Your task to perform on an android device: check the backup settings in the google photos Image 0: 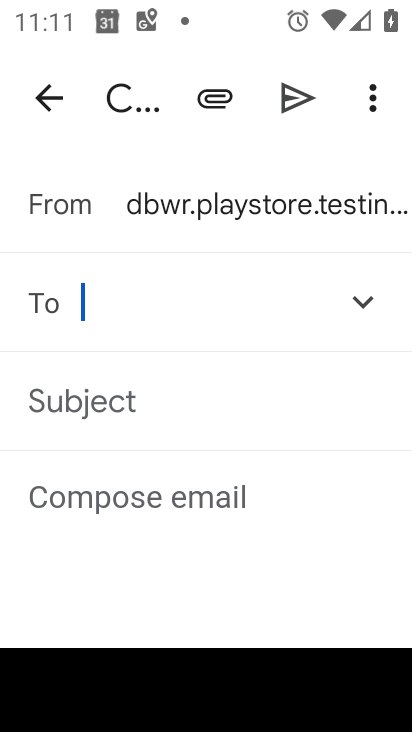
Step 0: press home button
Your task to perform on an android device: check the backup settings in the google photos Image 1: 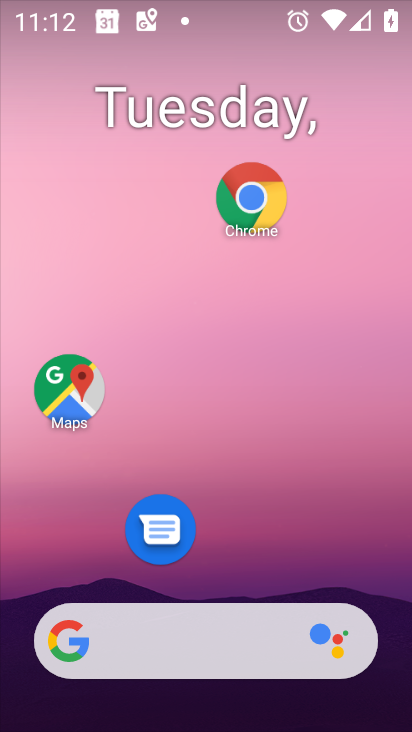
Step 1: drag from (322, 553) to (340, 47)
Your task to perform on an android device: check the backup settings in the google photos Image 2: 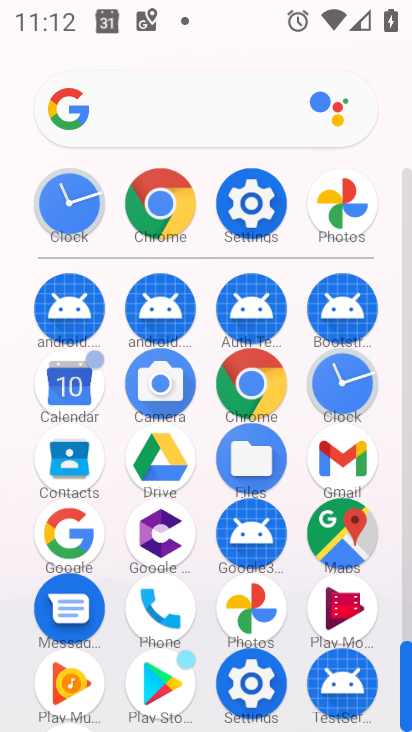
Step 2: click (255, 622)
Your task to perform on an android device: check the backup settings in the google photos Image 3: 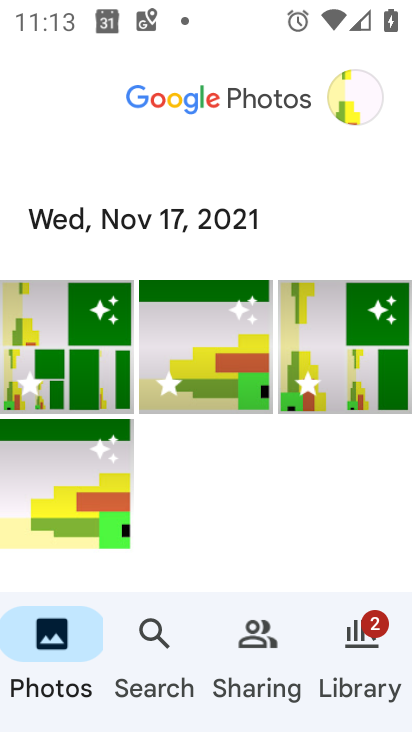
Step 3: click (364, 94)
Your task to perform on an android device: check the backup settings in the google photos Image 4: 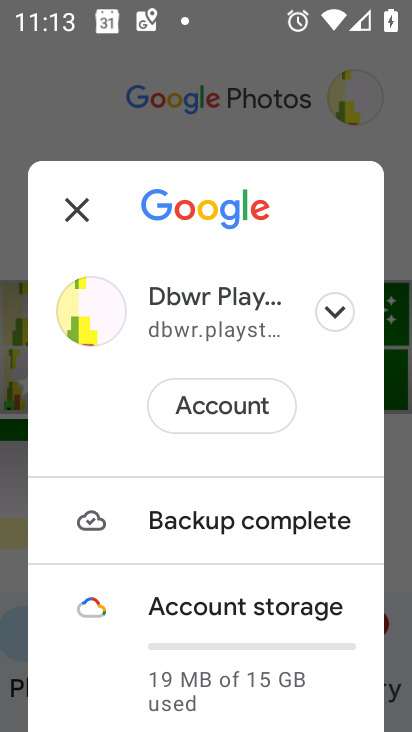
Step 4: click (234, 498)
Your task to perform on an android device: check the backup settings in the google photos Image 5: 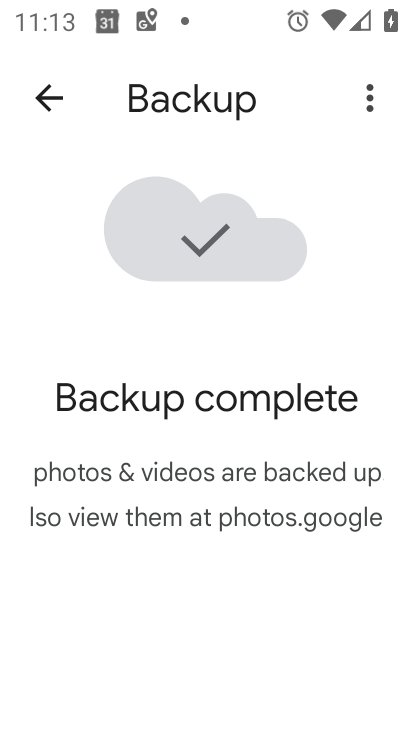
Step 5: task complete